Your task to perform on an android device: What is the recent news? Image 0: 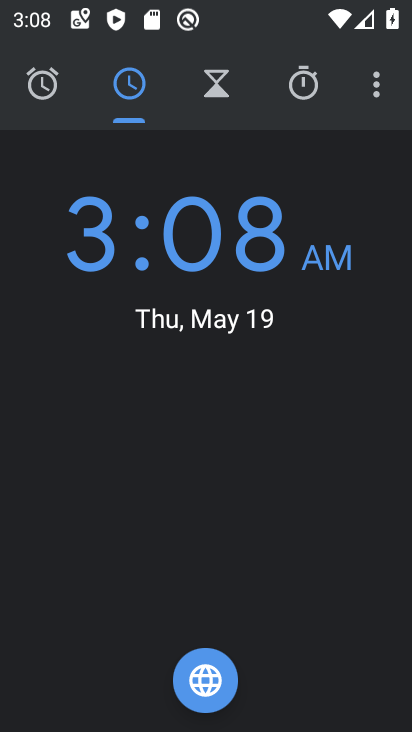
Step 0: press home button
Your task to perform on an android device: What is the recent news? Image 1: 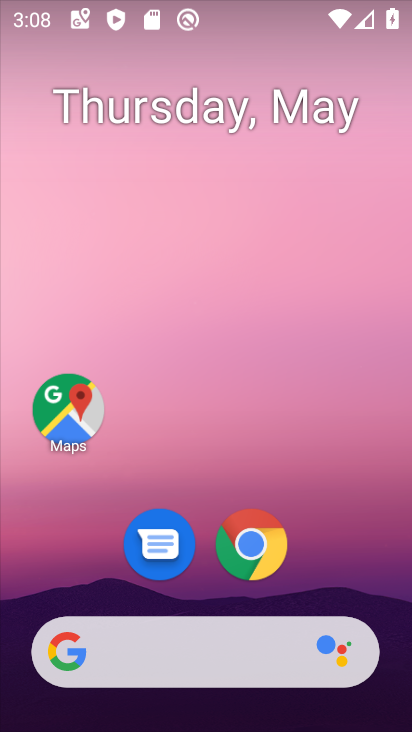
Step 1: drag from (211, 583) to (274, 275)
Your task to perform on an android device: What is the recent news? Image 2: 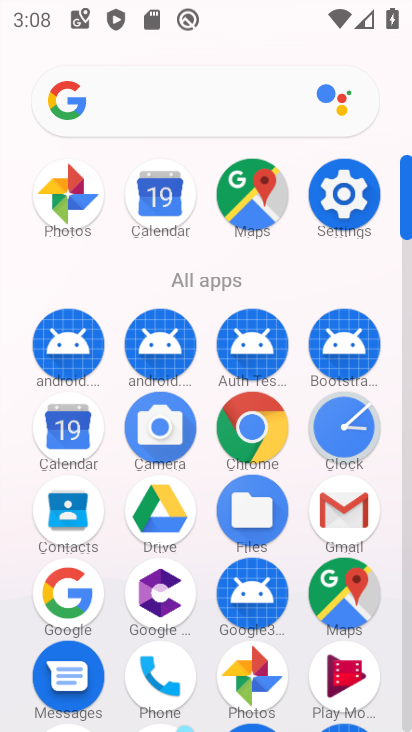
Step 2: click (182, 101)
Your task to perform on an android device: What is the recent news? Image 3: 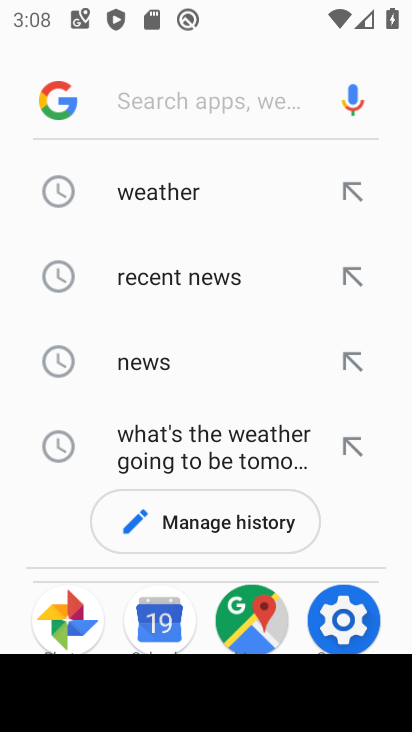
Step 3: type "recent news"
Your task to perform on an android device: What is the recent news? Image 4: 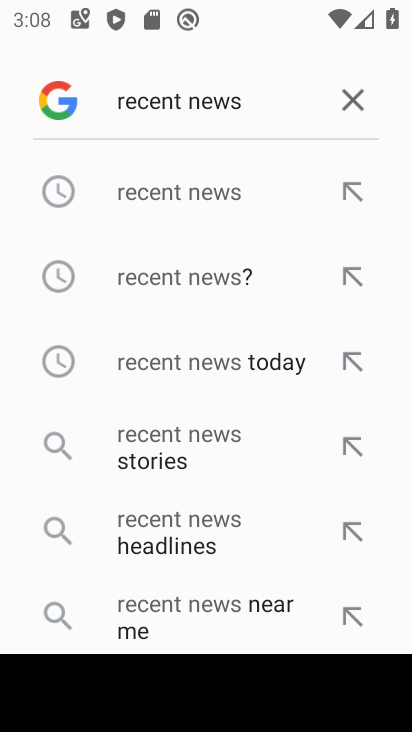
Step 4: click (242, 288)
Your task to perform on an android device: What is the recent news? Image 5: 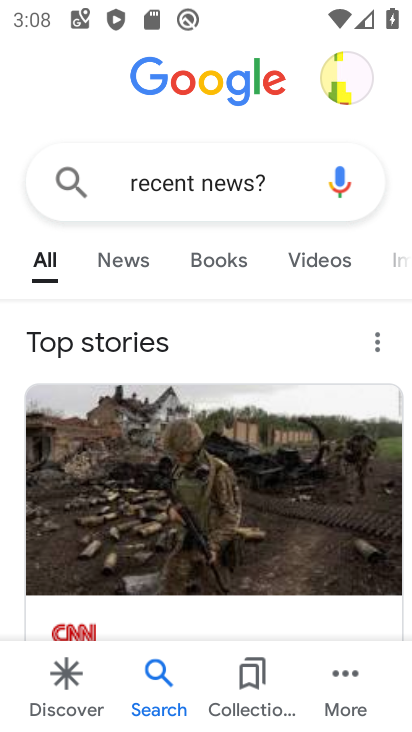
Step 5: task complete